Your task to perform on an android device: turn on sleep mode Image 0: 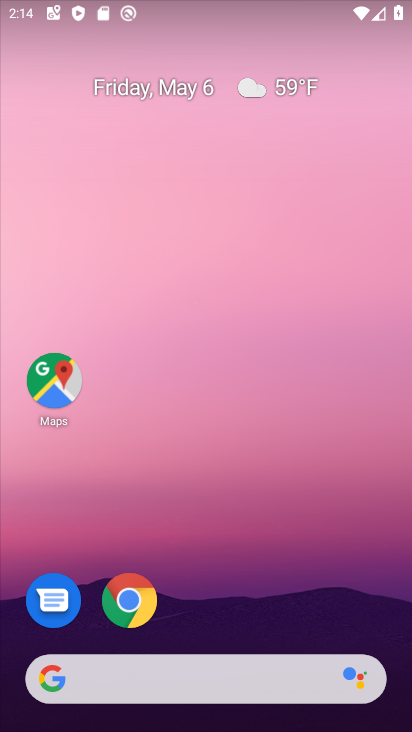
Step 0: drag from (287, 593) to (292, 12)
Your task to perform on an android device: turn on sleep mode Image 1: 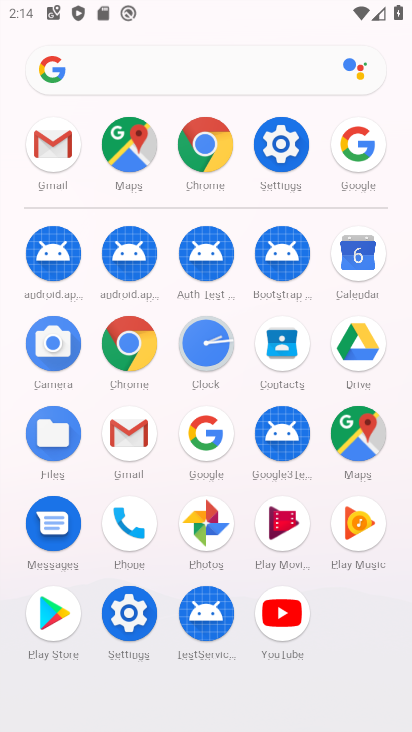
Step 1: click (276, 136)
Your task to perform on an android device: turn on sleep mode Image 2: 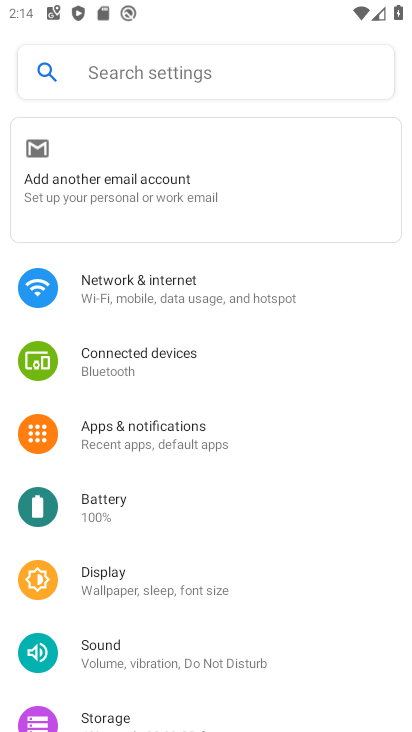
Step 2: drag from (209, 569) to (257, 230)
Your task to perform on an android device: turn on sleep mode Image 3: 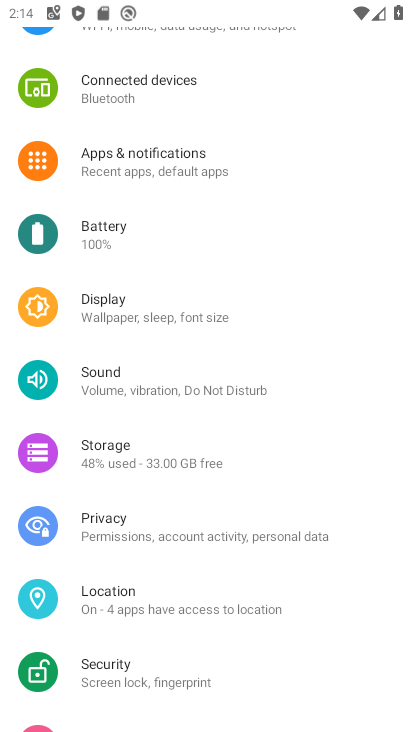
Step 3: click (158, 311)
Your task to perform on an android device: turn on sleep mode Image 4: 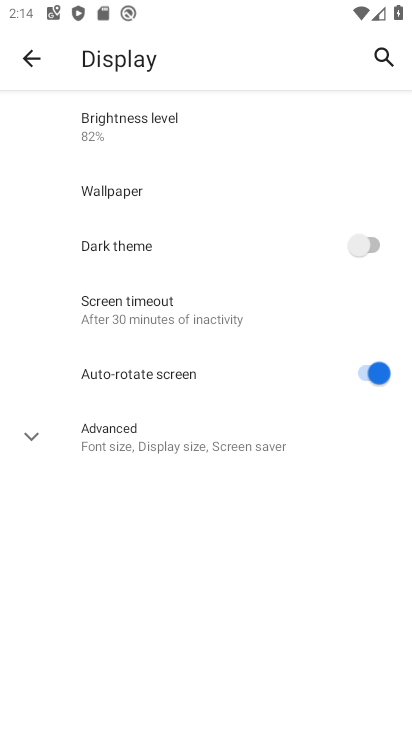
Step 4: task complete